Your task to perform on an android device: Search for "dell xps" on walmart.com, select the first entry, and add it to the cart. Image 0: 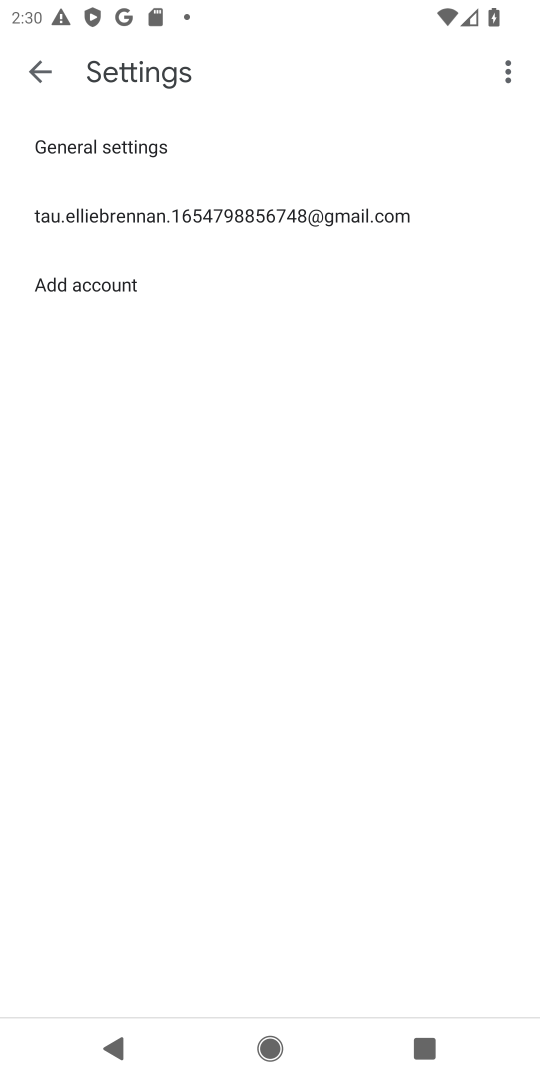
Step 0: press home button
Your task to perform on an android device: Search for "dell xps" on walmart.com, select the first entry, and add it to the cart. Image 1: 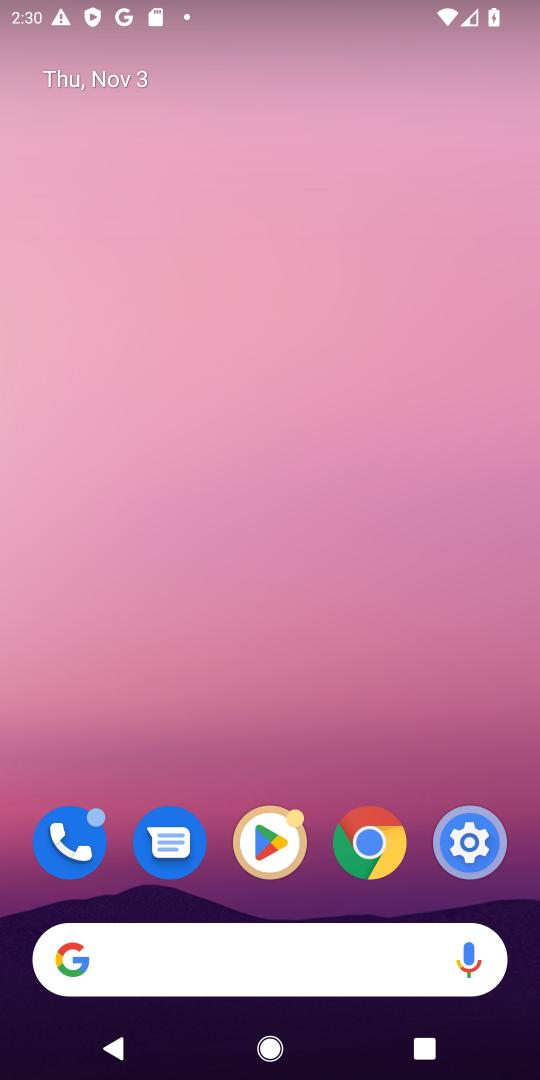
Step 1: click (118, 955)
Your task to perform on an android device: Search for "dell xps" on walmart.com, select the first entry, and add it to the cart. Image 2: 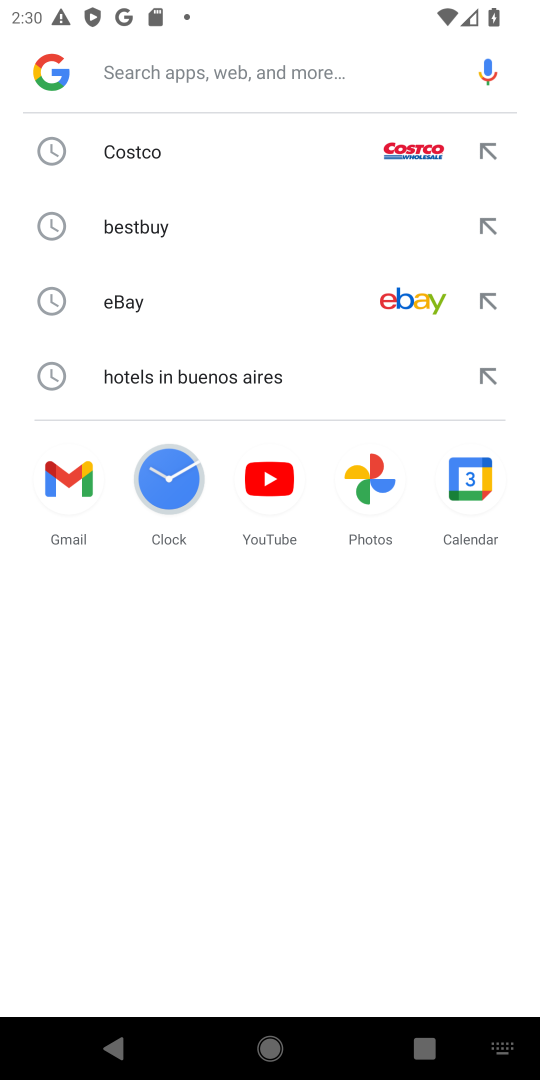
Step 2: type "walmart.com"
Your task to perform on an android device: Search for "dell xps" on walmart.com, select the first entry, and add it to the cart. Image 3: 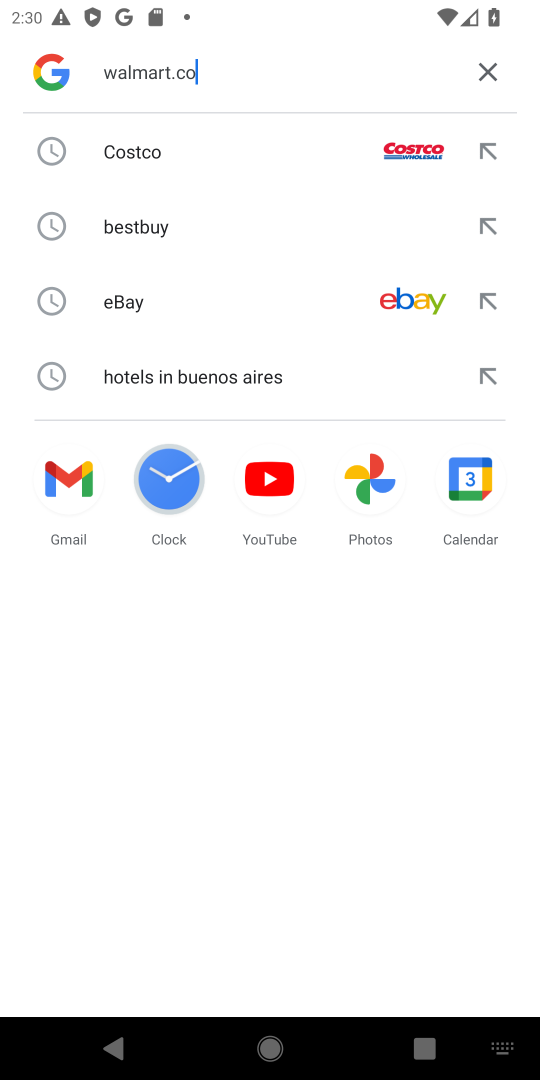
Step 3: press enter
Your task to perform on an android device: Search for "dell xps" on walmart.com, select the first entry, and add it to the cart. Image 4: 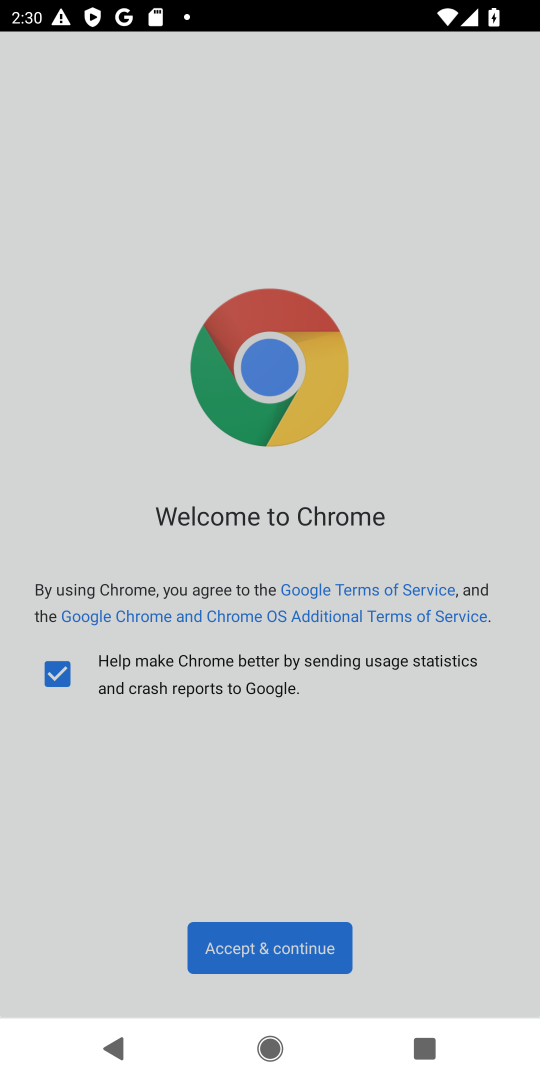
Step 4: click (237, 950)
Your task to perform on an android device: Search for "dell xps" on walmart.com, select the first entry, and add it to the cart. Image 5: 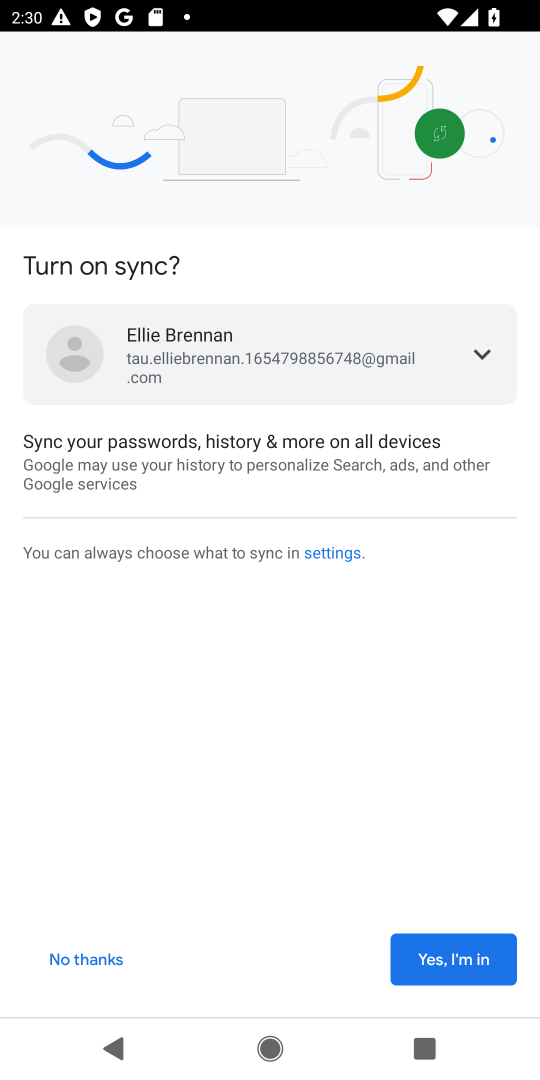
Step 5: click (460, 956)
Your task to perform on an android device: Search for "dell xps" on walmart.com, select the first entry, and add it to the cart. Image 6: 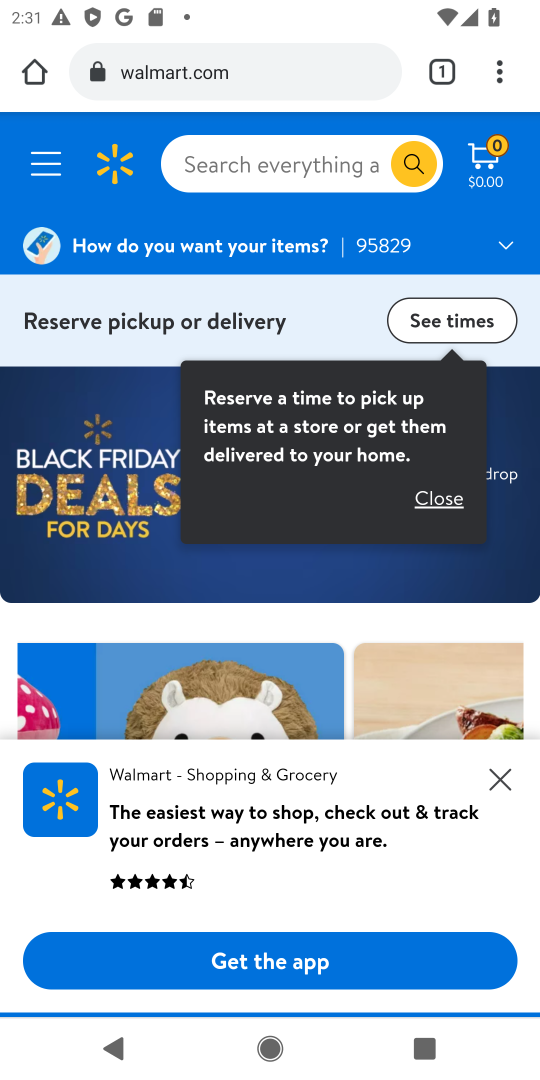
Step 6: click (497, 778)
Your task to perform on an android device: Search for "dell xps" on walmart.com, select the first entry, and add it to the cart. Image 7: 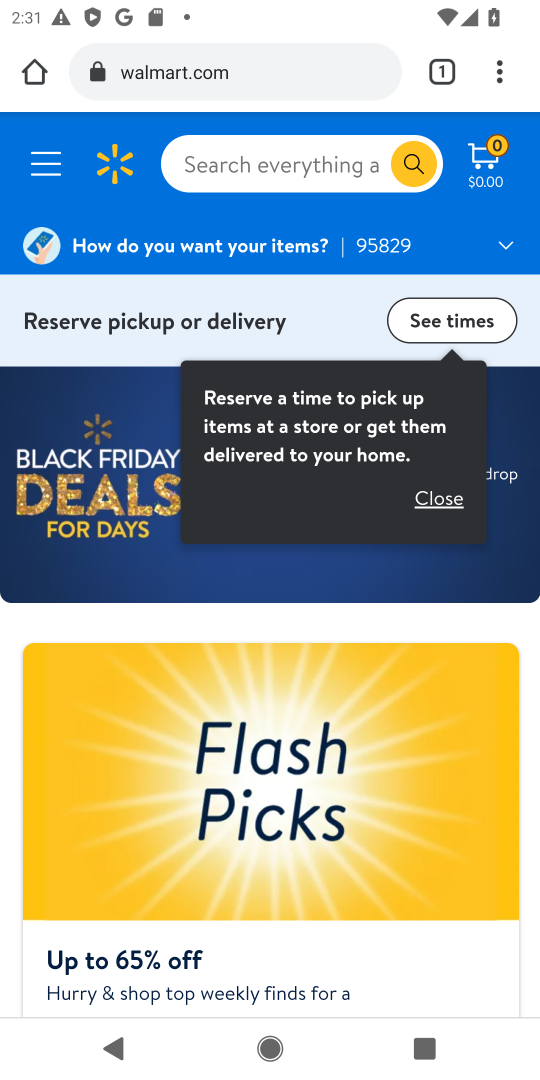
Step 7: click (245, 157)
Your task to perform on an android device: Search for "dell xps" on walmart.com, select the first entry, and add it to the cart. Image 8: 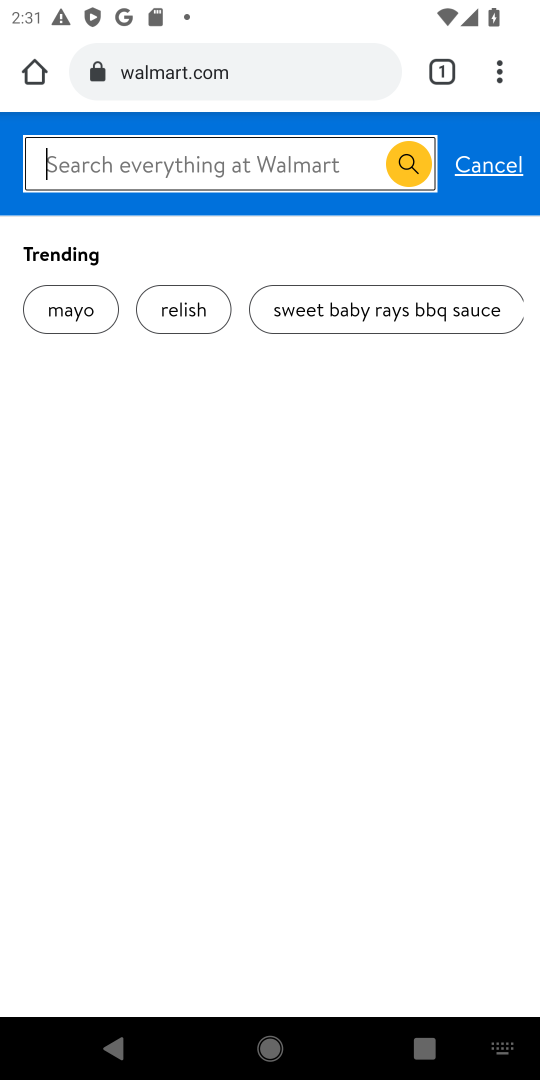
Step 8: type "dell xps"
Your task to perform on an android device: Search for "dell xps" on walmart.com, select the first entry, and add it to the cart. Image 9: 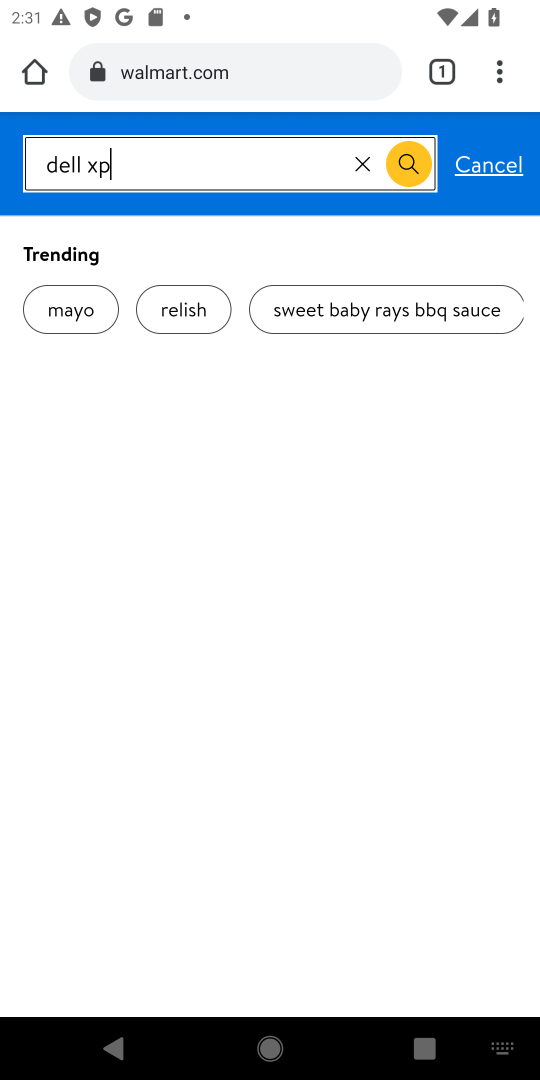
Step 9: press enter
Your task to perform on an android device: Search for "dell xps" on walmart.com, select the first entry, and add it to the cart. Image 10: 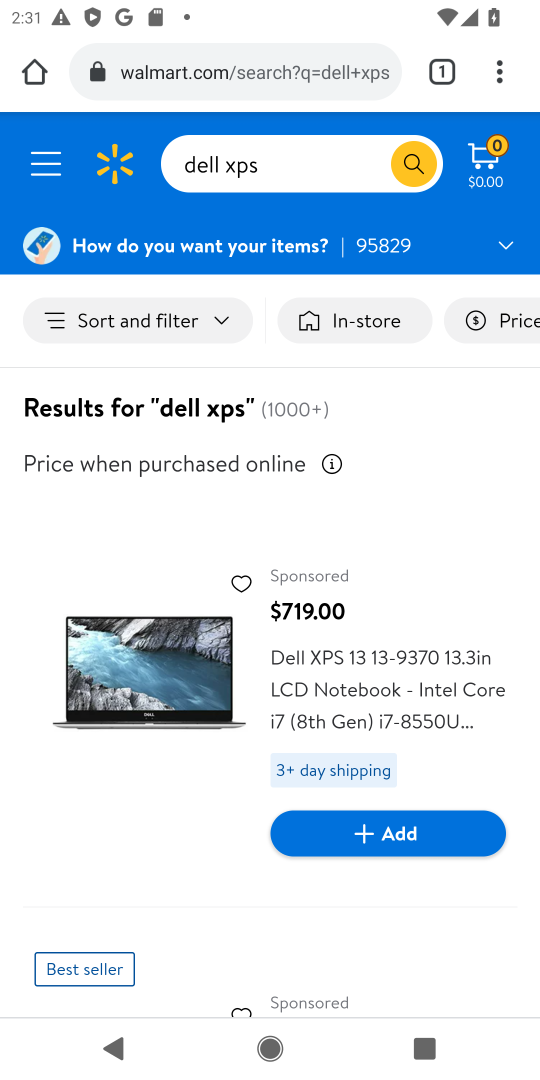
Step 10: click (379, 834)
Your task to perform on an android device: Search for "dell xps" on walmart.com, select the first entry, and add it to the cart. Image 11: 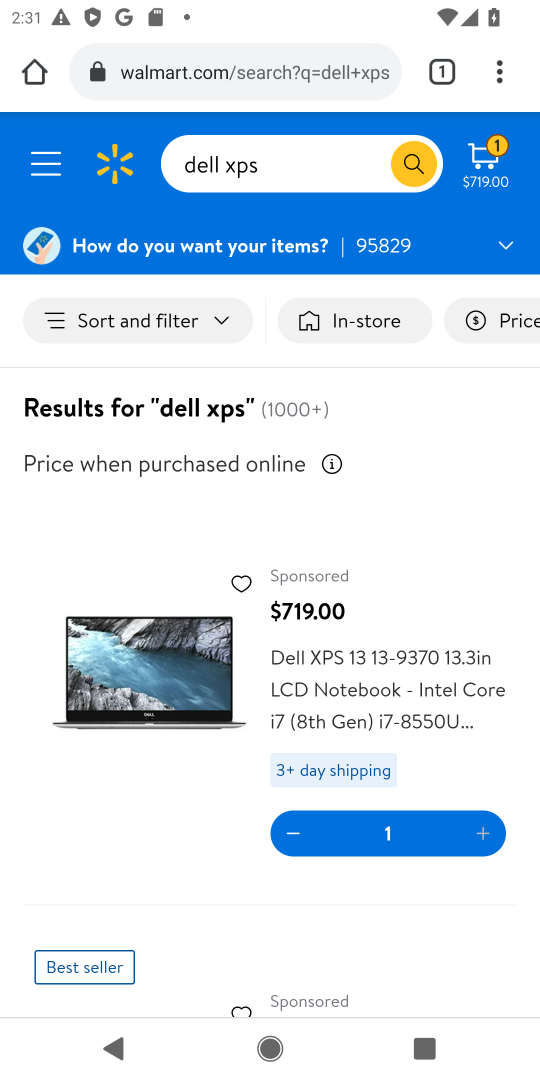
Step 11: task complete